Your task to perform on an android device: delete the emails in spam in the gmail app Image 0: 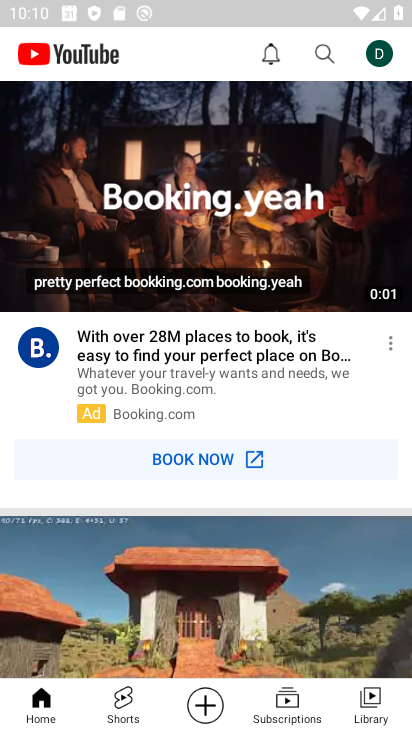
Step 0: press home button
Your task to perform on an android device: delete the emails in spam in the gmail app Image 1: 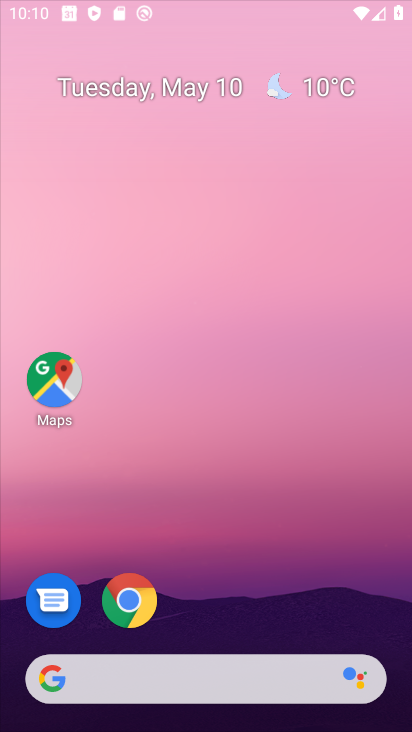
Step 1: drag from (236, 545) to (209, 2)
Your task to perform on an android device: delete the emails in spam in the gmail app Image 2: 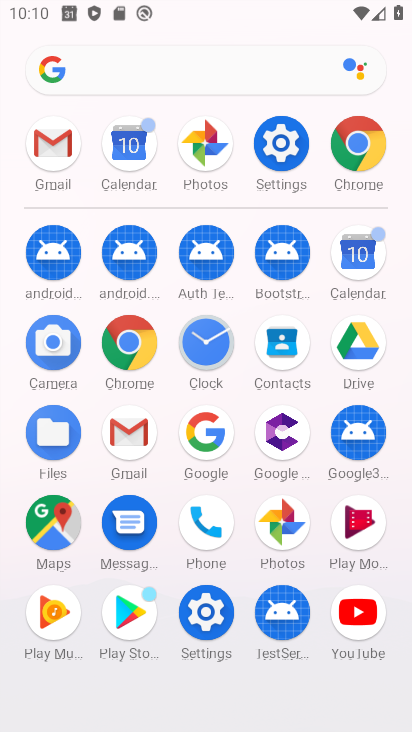
Step 2: click (50, 157)
Your task to perform on an android device: delete the emails in spam in the gmail app Image 3: 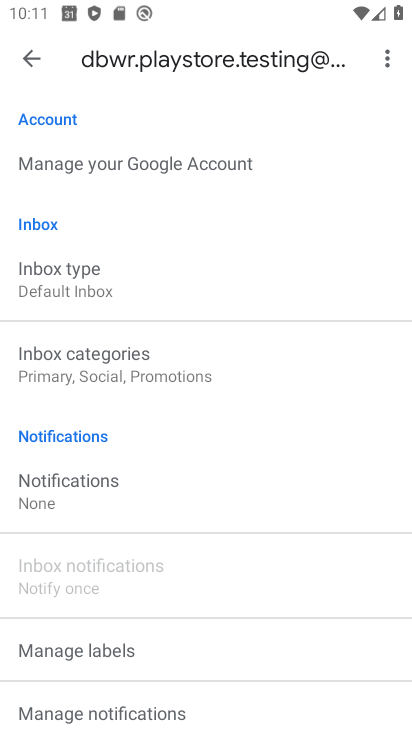
Step 3: drag from (94, 472) to (177, 119)
Your task to perform on an android device: delete the emails in spam in the gmail app Image 4: 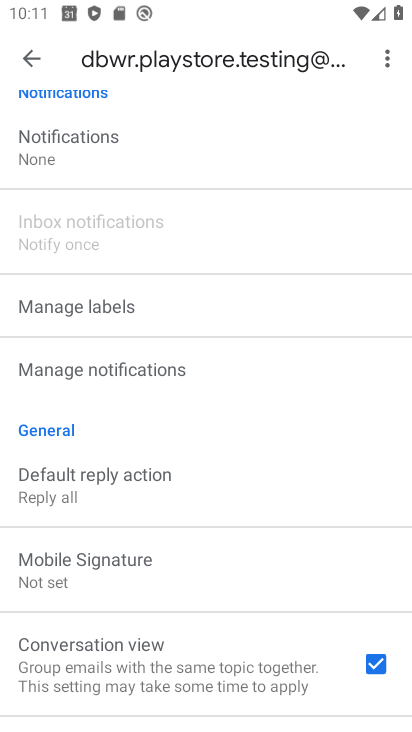
Step 4: click (43, 62)
Your task to perform on an android device: delete the emails in spam in the gmail app Image 5: 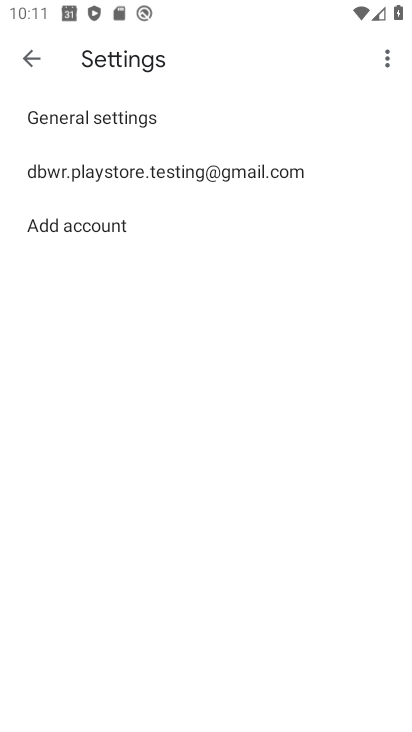
Step 5: click (33, 59)
Your task to perform on an android device: delete the emails in spam in the gmail app Image 6: 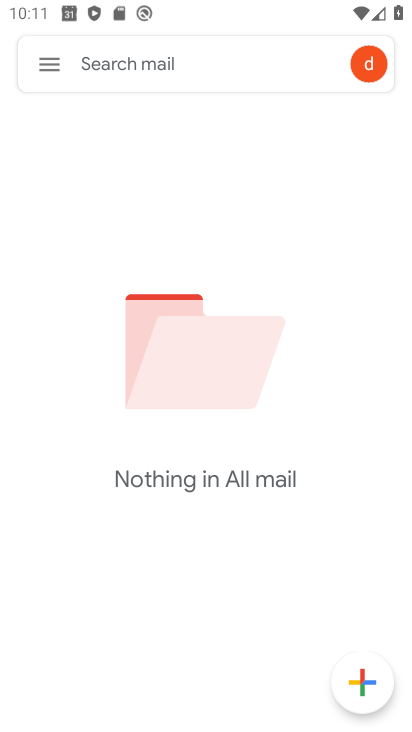
Step 6: click (44, 69)
Your task to perform on an android device: delete the emails in spam in the gmail app Image 7: 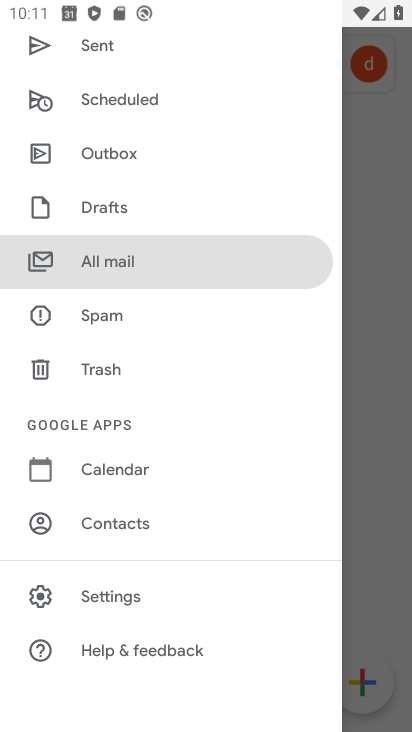
Step 7: click (85, 317)
Your task to perform on an android device: delete the emails in spam in the gmail app Image 8: 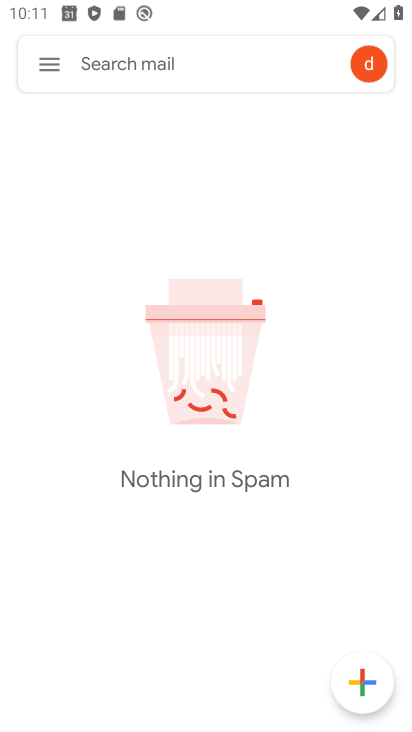
Step 8: task complete